Your task to perform on an android device: delete browsing data in the chrome app Image 0: 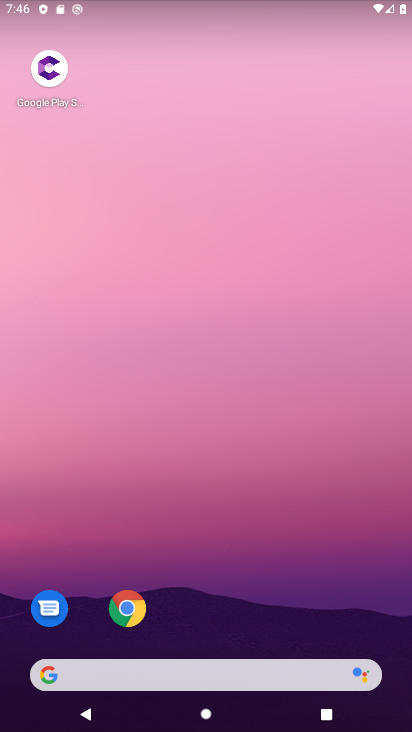
Step 0: click (136, 591)
Your task to perform on an android device: delete browsing data in the chrome app Image 1: 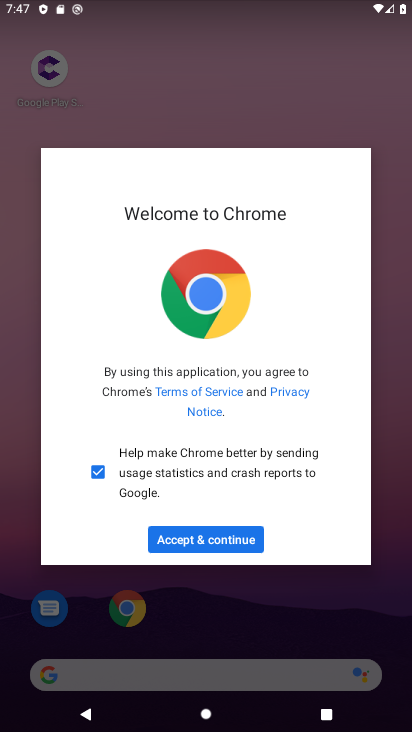
Step 1: click (240, 532)
Your task to perform on an android device: delete browsing data in the chrome app Image 2: 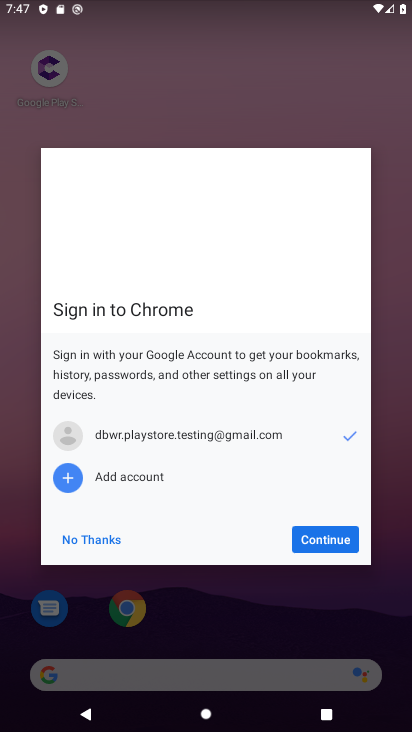
Step 2: click (328, 534)
Your task to perform on an android device: delete browsing data in the chrome app Image 3: 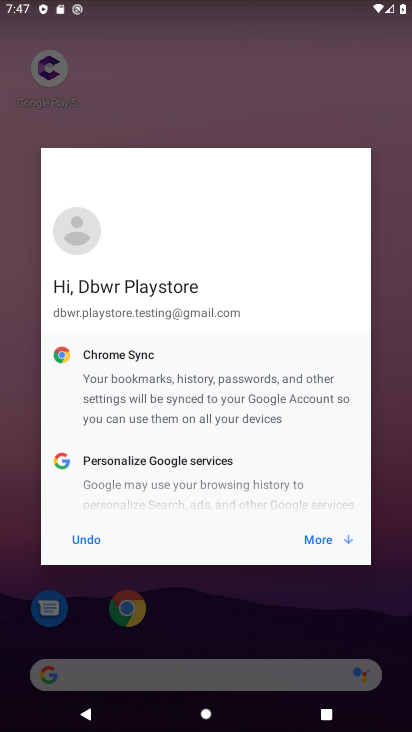
Step 3: click (312, 543)
Your task to perform on an android device: delete browsing data in the chrome app Image 4: 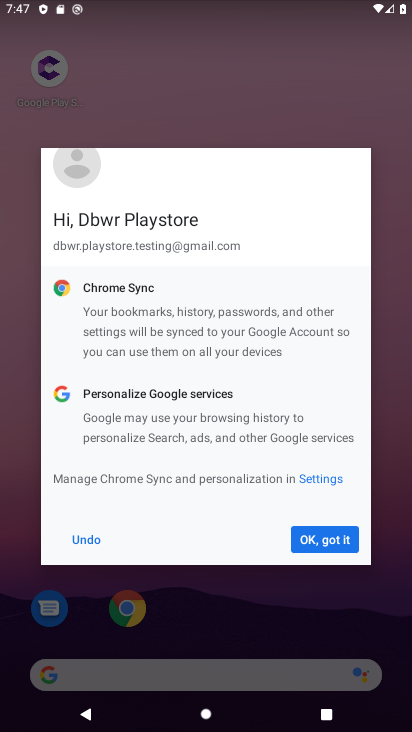
Step 4: click (324, 534)
Your task to perform on an android device: delete browsing data in the chrome app Image 5: 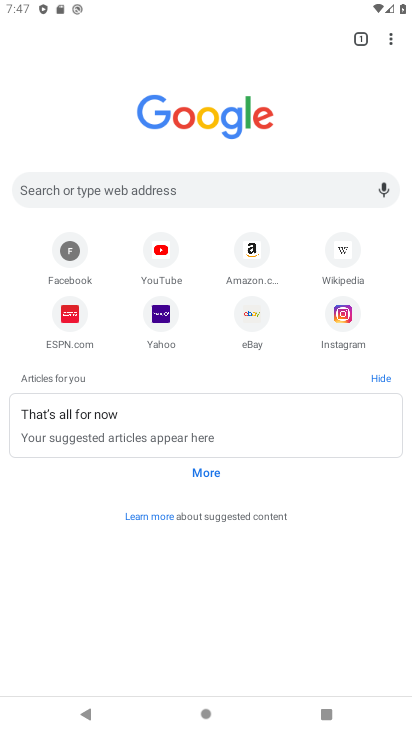
Step 5: click (385, 41)
Your task to perform on an android device: delete browsing data in the chrome app Image 6: 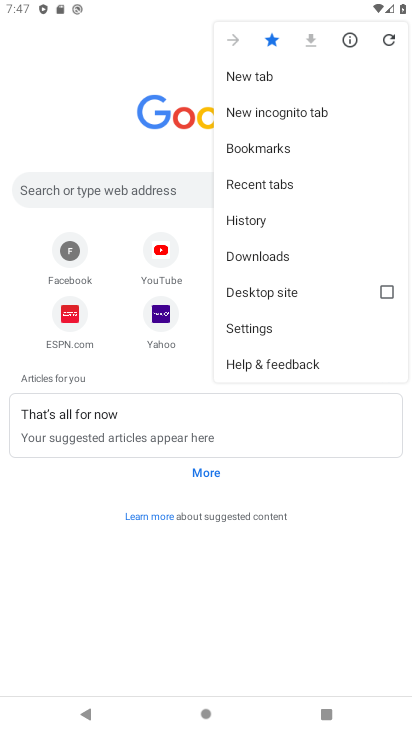
Step 6: click (276, 223)
Your task to perform on an android device: delete browsing data in the chrome app Image 7: 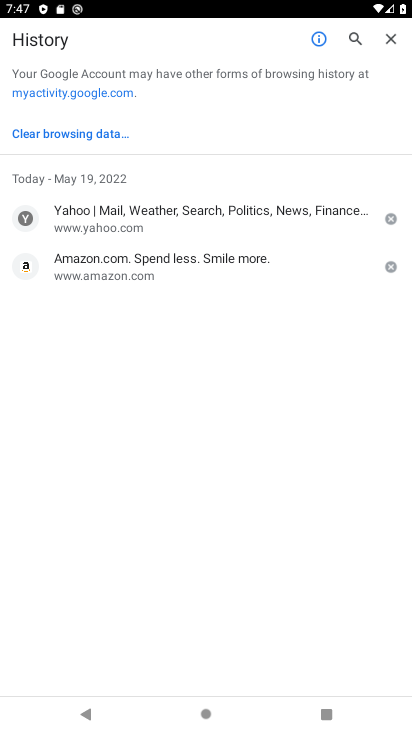
Step 7: click (84, 137)
Your task to perform on an android device: delete browsing data in the chrome app Image 8: 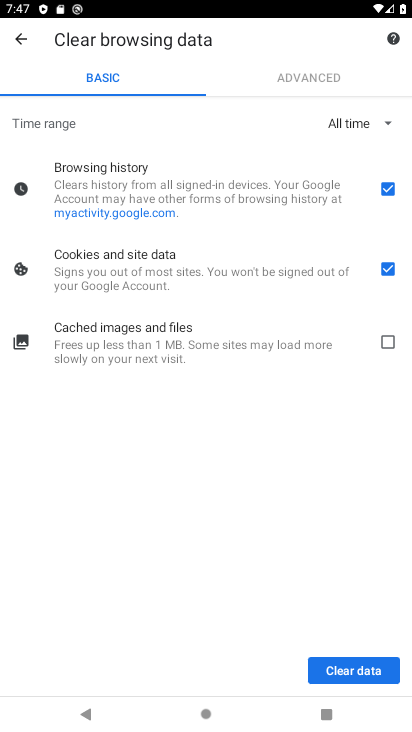
Step 8: click (355, 689)
Your task to perform on an android device: delete browsing data in the chrome app Image 9: 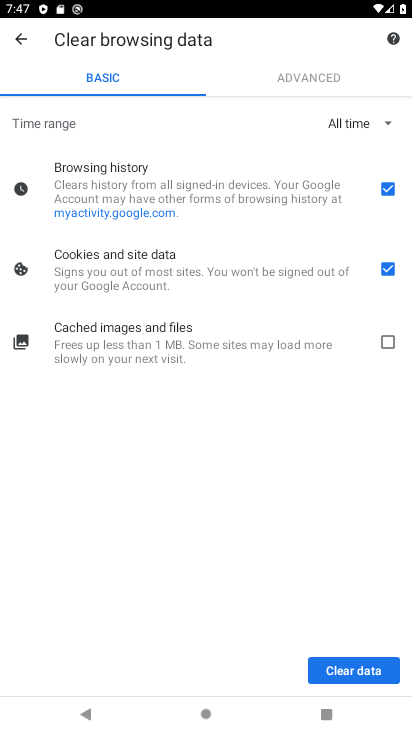
Step 9: click (355, 680)
Your task to perform on an android device: delete browsing data in the chrome app Image 10: 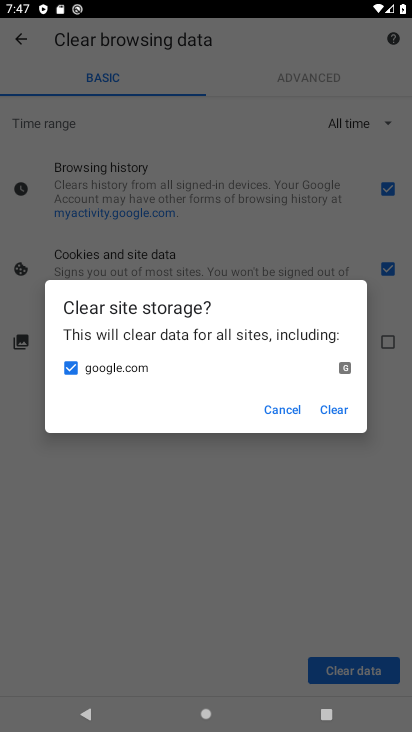
Step 10: click (340, 402)
Your task to perform on an android device: delete browsing data in the chrome app Image 11: 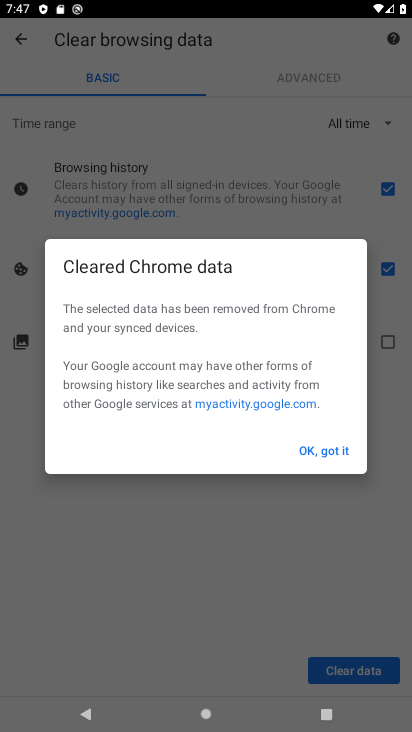
Step 11: click (332, 443)
Your task to perform on an android device: delete browsing data in the chrome app Image 12: 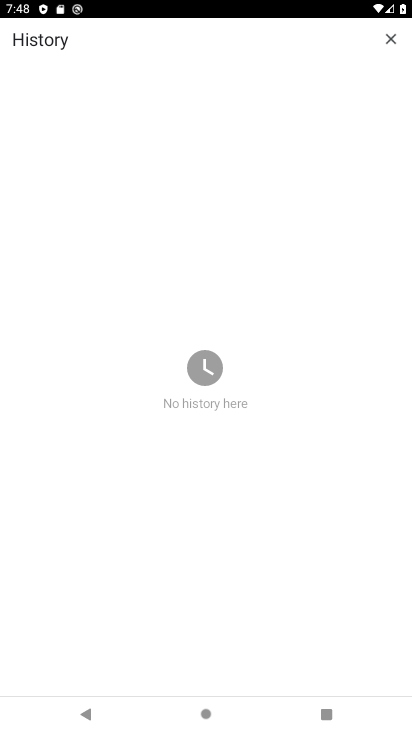
Step 12: task complete